Your task to perform on an android device: Open the phone app and click the voicemail tab. Image 0: 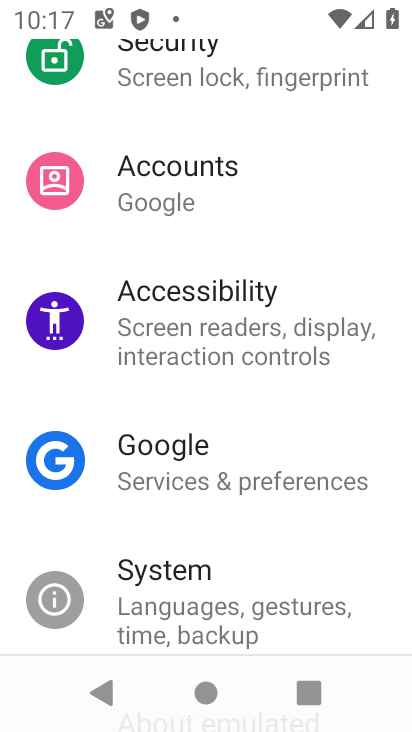
Step 0: press home button
Your task to perform on an android device: Open the phone app and click the voicemail tab. Image 1: 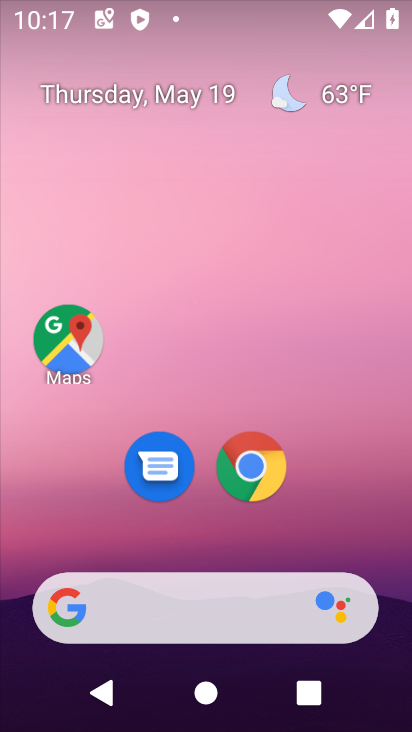
Step 1: drag from (390, 607) to (320, 75)
Your task to perform on an android device: Open the phone app and click the voicemail tab. Image 2: 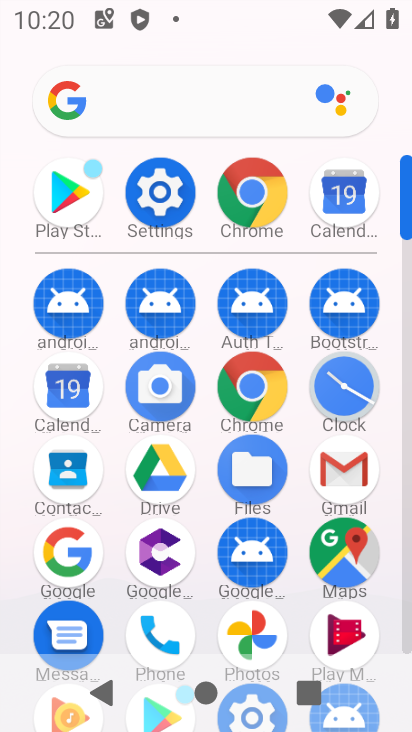
Step 2: click (151, 624)
Your task to perform on an android device: Open the phone app and click the voicemail tab. Image 3: 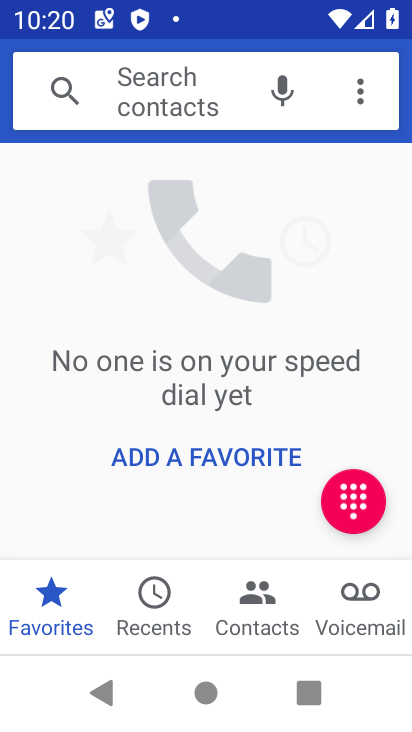
Step 3: click (365, 605)
Your task to perform on an android device: Open the phone app and click the voicemail tab. Image 4: 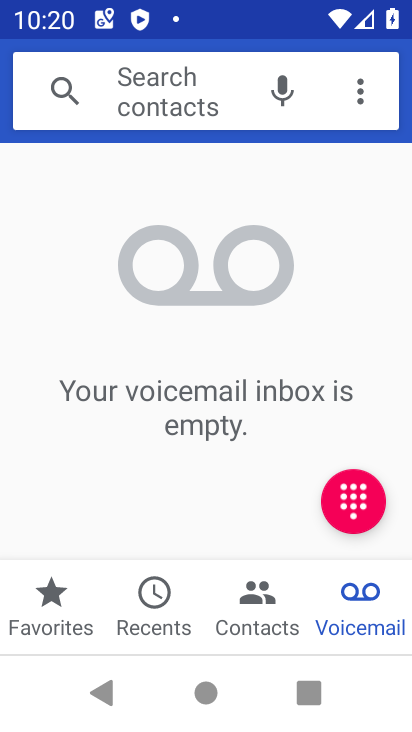
Step 4: task complete